Your task to perform on an android device: Add logitech g502 to the cart on amazon Image 0: 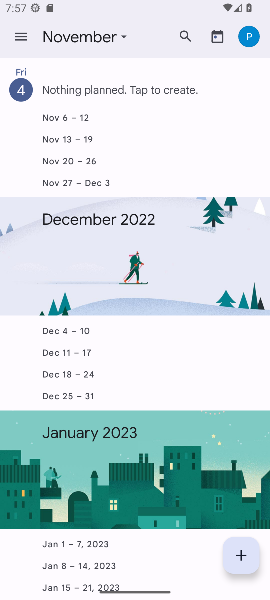
Step 0: press home button
Your task to perform on an android device: Add logitech g502 to the cart on amazon Image 1: 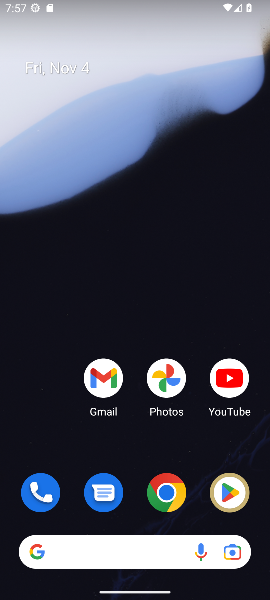
Step 1: drag from (131, 452) to (135, 67)
Your task to perform on an android device: Add logitech g502 to the cart on amazon Image 2: 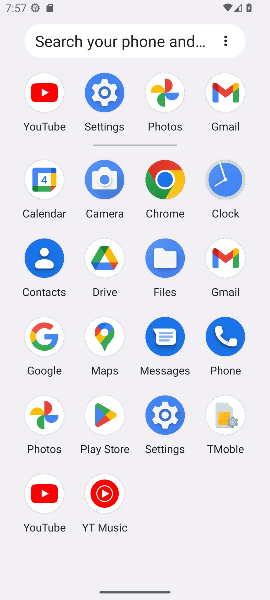
Step 2: click (165, 178)
Your task to perform on an android device: Add logitech g502 to the cart on amazon Image 3: 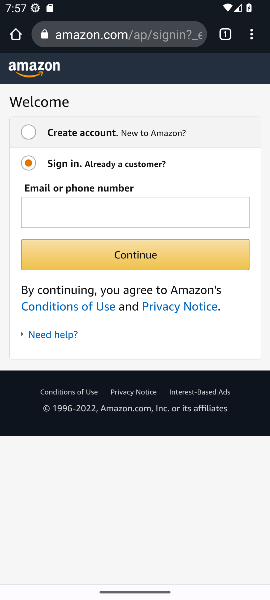
Step 3: click (144, 42)
Your task to perform on an android device: Add logitech g502 to the cart on amazon Image 4: 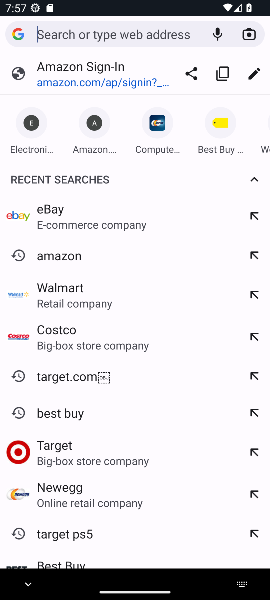
Step 4: type "amazon.com"
Your task to perform on an android device: Add logitech g502 to the cart on amazon Image 5: 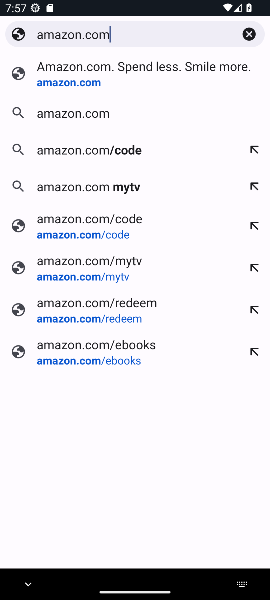
Step 5: press enter
Your task to perform on an android device: Add logitech g502 to the cart on amazon Image 6: 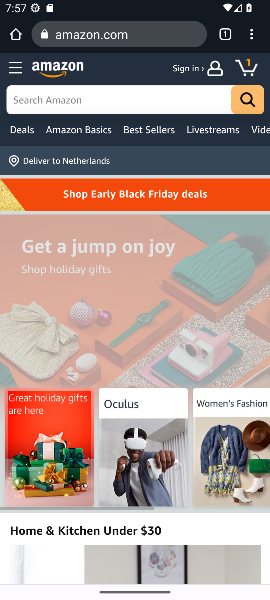
Step 6: click (135, 105)
Your task to perform on an android device: Add logitech g502 to the cart on amazon Image 7: 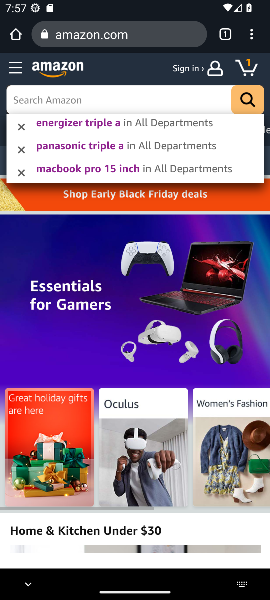
Step 7: type "logitech g502"
Your task to perform on an android device: Add logitech g502 to the cart on amazon Image 8: 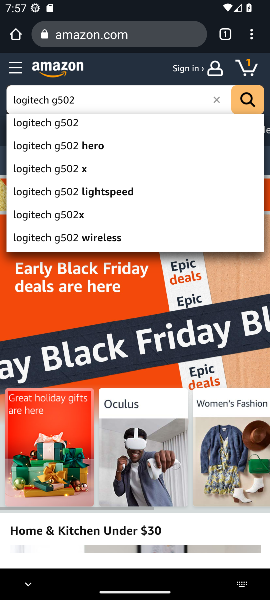
Step 8: press enter
Your task to perform on an android device: Add logitech g502 to the cart on amazon Image 9: 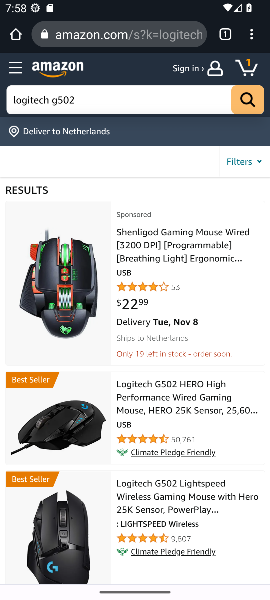
Step 9: click (161, 403)
Your task to perform on an android device: Add logitech g502 to the cart on amazon Image 10: 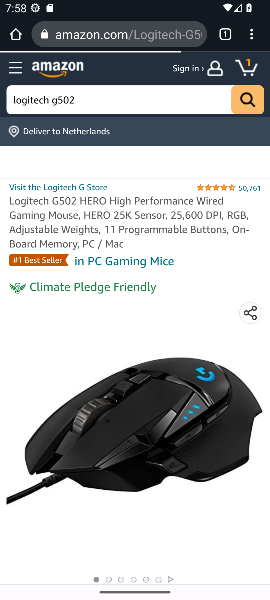
Step 10: task complete